Your task to perform on an android device: add a contact in the contacts app Image 0: 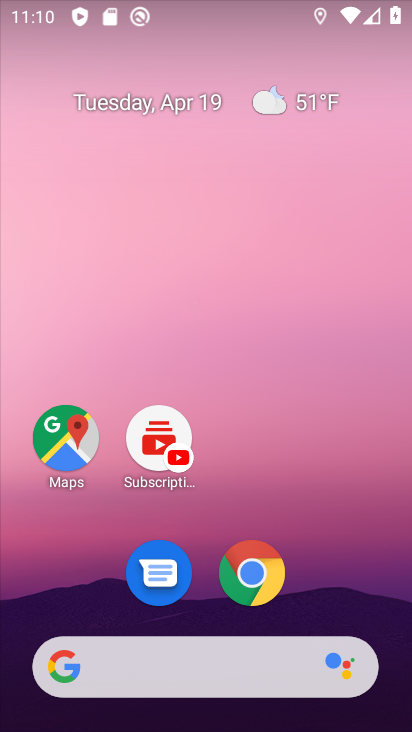
Step 0: drag from (368, 513) to (346, 256)
Your task to perform on an android device: add a contact in the contacts app Image 1: 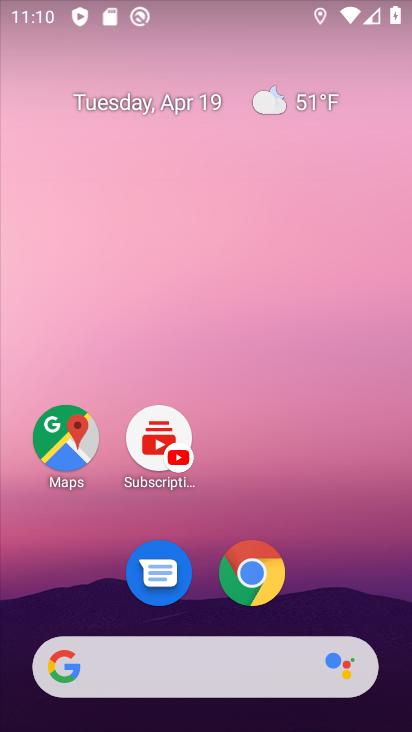
Step 1: drag from (331, 596) to (233, 136)
Your task to perform on an android device: add a contact in the contacts app Image 2: 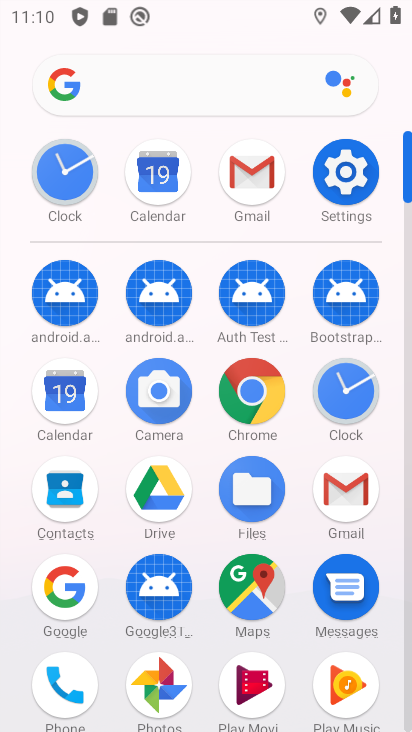
Step 2: click (72, 489)
Your task to perform on an android device: add a contact in the contacts app Image 3: 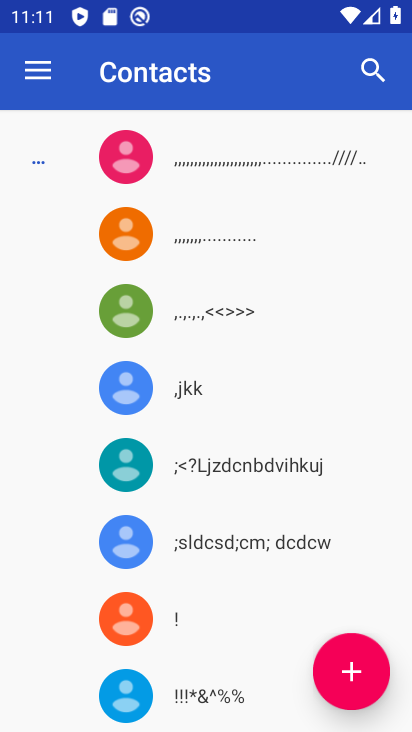
Step 3: click (349, 680)
Your task to perform on an android device: add a contact in the contacts app Image 4: 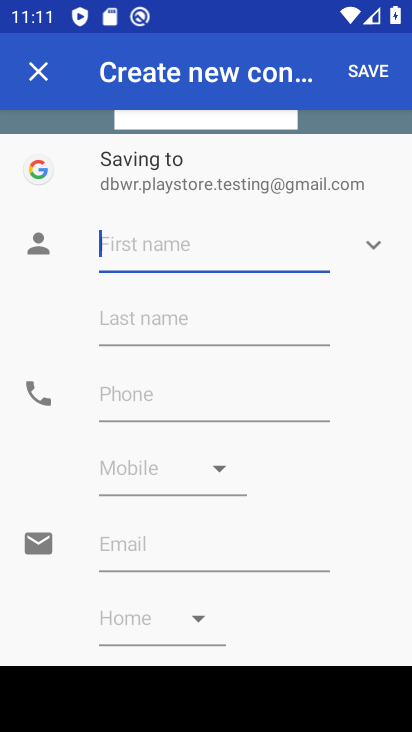
Step 4: click (155, 254)
Your task to perform on an android device: add a contact in the contacts app Image 5: 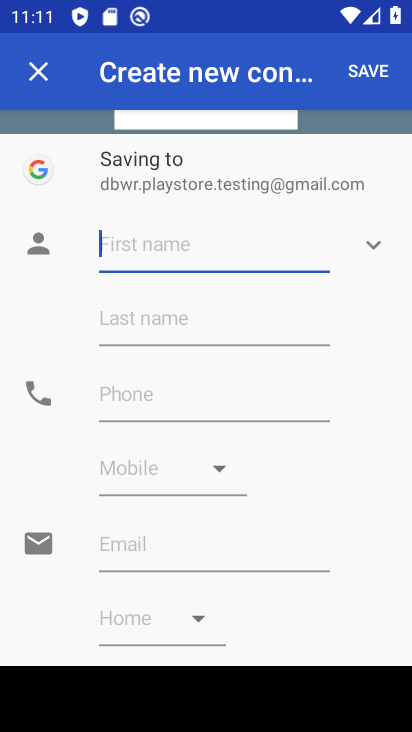
Step 5: type ". C Utkarsh"
Your task to perform on an android device: add a contact in the contacts app Image 6: 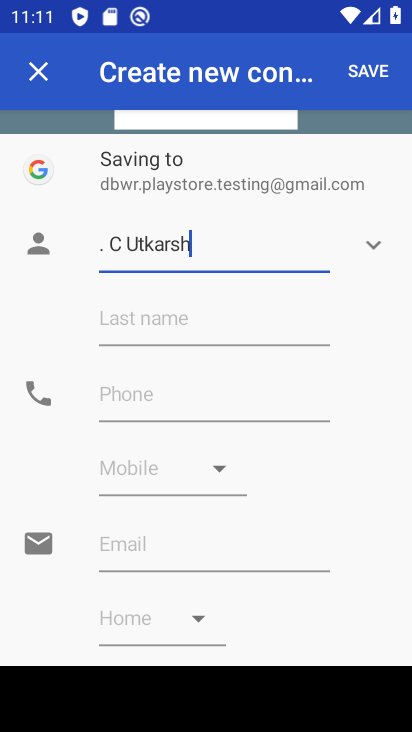
Step 6: click (119, 397)
Your task to perform on an android device: add a contact in the contacts app Image 7: 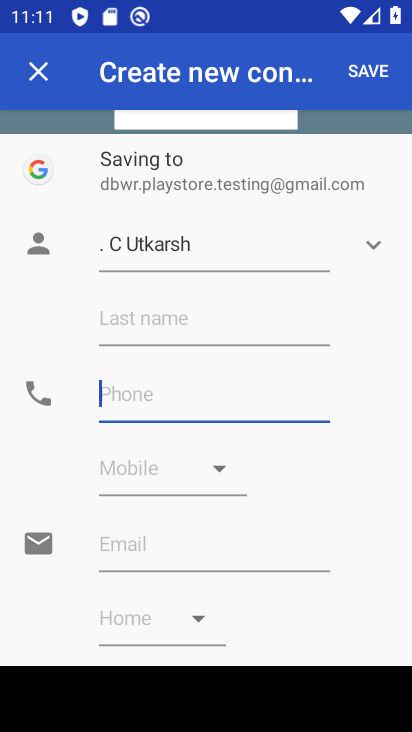
Step 7: type "0000"
Your task to perform on an android device: add a contact in the contacts app Image 8: 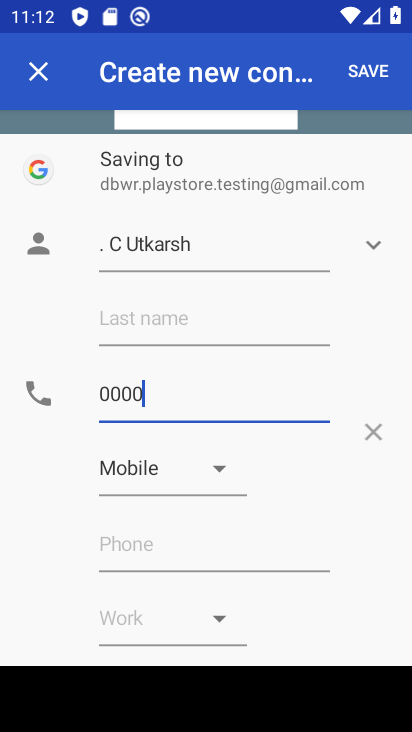
Step 8: click (375, 70)
Your task to perform on an android device: add a contact in the contacts app Image 9: 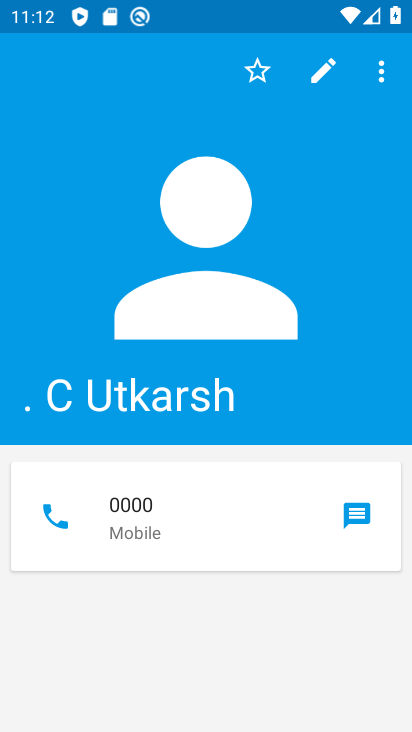
Step 9: task complete